Your task to perform on an android device: snooze an email in the gmail app Image 0: 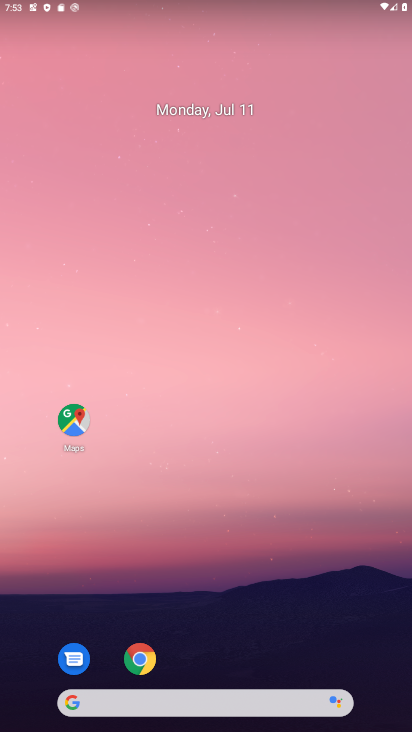
Step 0: drag from (252, 599) to (283, 220)
Your task to perform on an android device: snooze an email in the gmail app Image 1: 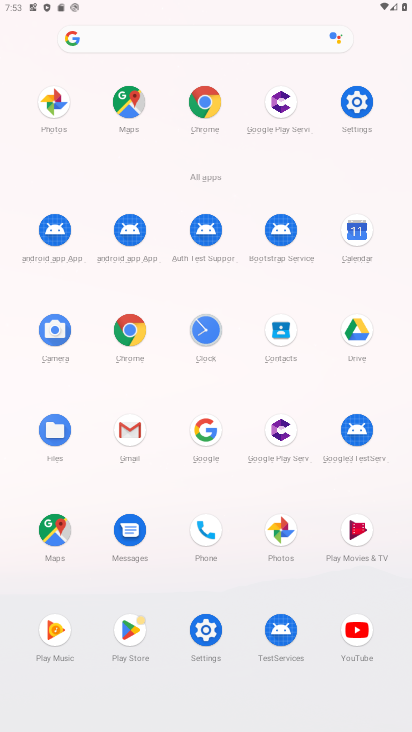
Step 1: click (130, 431)
Your task to perform on an android device: snooze an email in the gmail app Image 2: 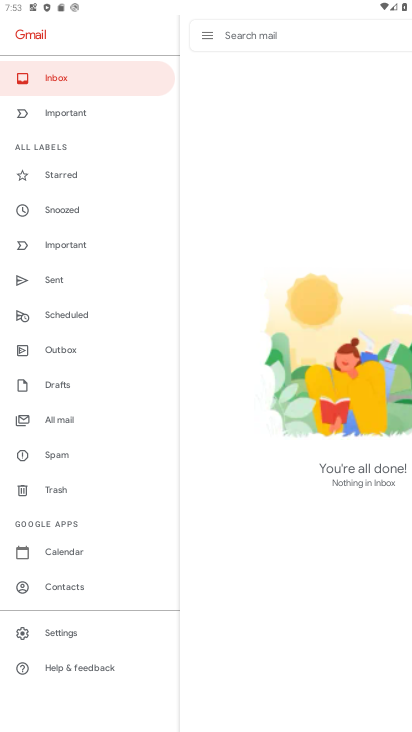
Step 2: drag from (89, 591) to (98, 320)
Your task to perform on an android device: snooze an email in the gmail app Image 3: 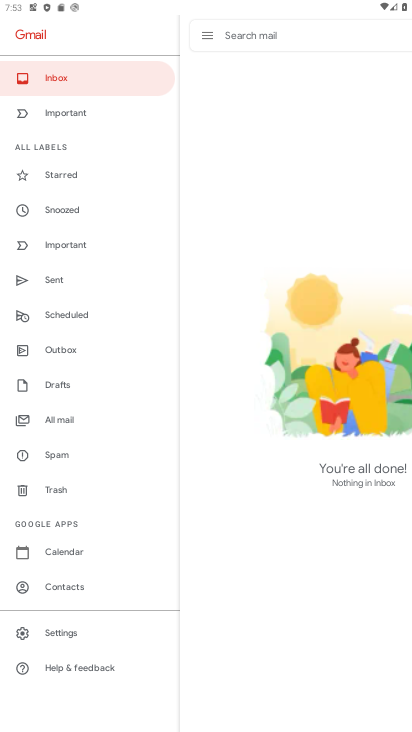
Step 3: drag from (98, 247) to (80, 687)
Your task to perform on an android device: snooze an email in the gmail app Image 4: 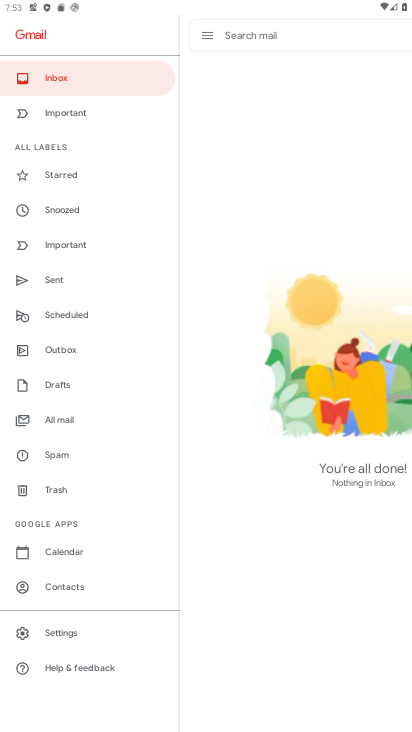
Step 4: click (229, 189)
Your task to perform on an android device: snooze an email in the gmail app Image 5: 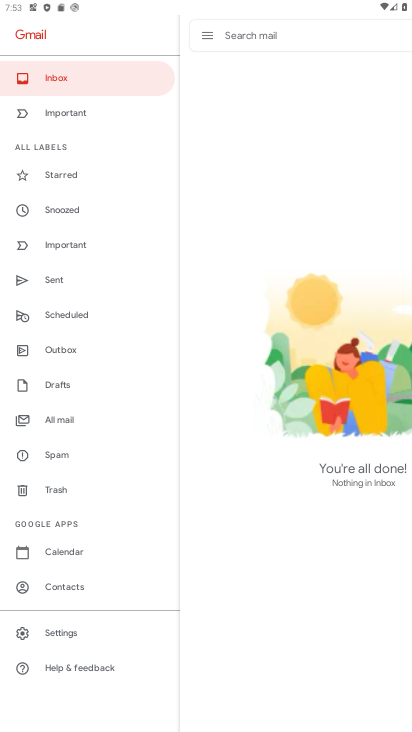
Step 5: task complete